Your task to perform on an android device: Go to sound settings Image 0: 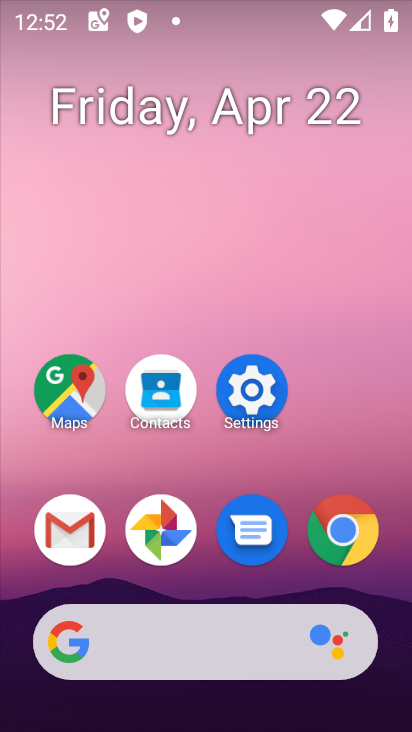
Step 0: click (251, 389)
Your task to perform on an android device: Go to sound settings Image 1: 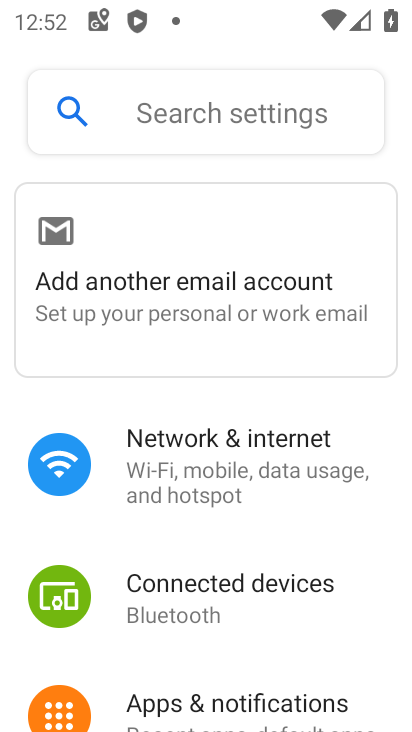
Step 1: drag from (243, 635) to (196, 52)
Your task to perform on an android device: Go to sound settings Image 2: 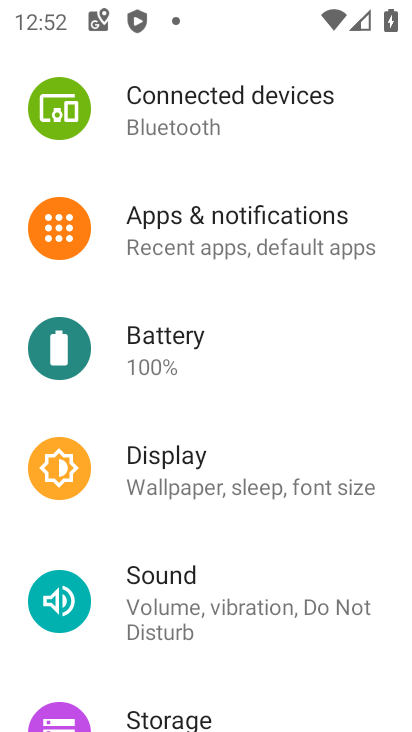
Step 2: click (167, 580)
Your task to perform on an android device: Go to sound settings Image 3: 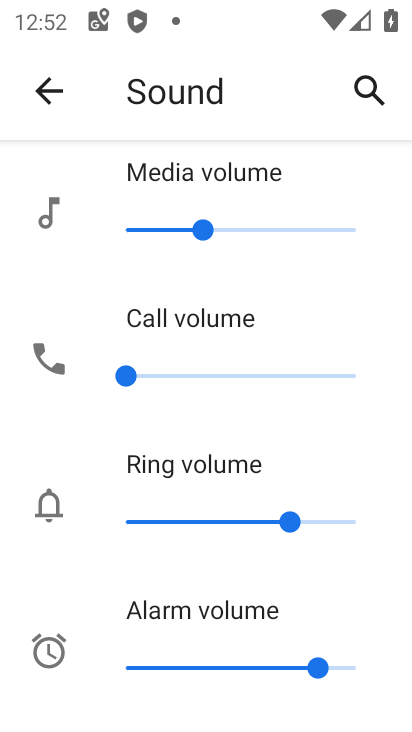
Step 3: task complete